Your task to perform on an android device: What's on my calendar tomorrow? Image 0: 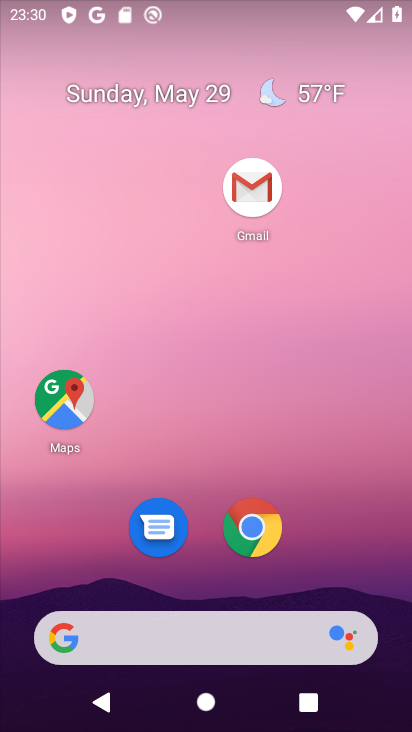
Step 0: drag from (341, 518) to (326, 140)
Your task to perform on an android device: What's on my calendar tomorrow? Image 1: 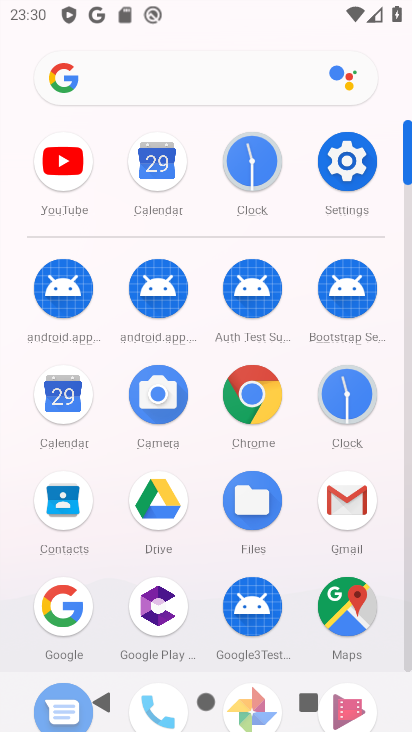
Step 1: click (156, 164)
Your task to perform on an android device: What's on my calendar tomorrow? Image 2: 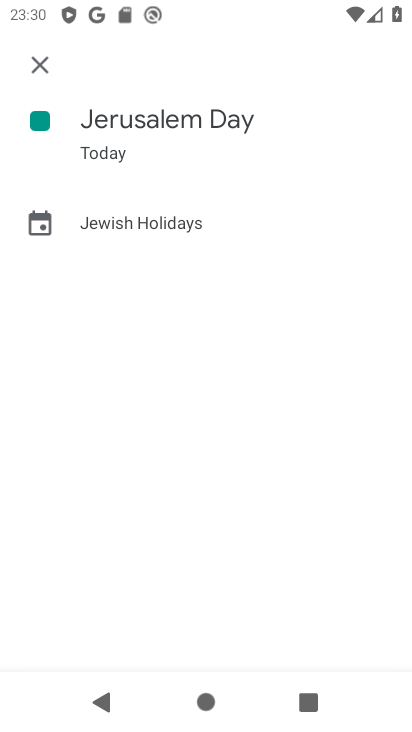
Step 2: click (43, 63)
Your task to perform on an android device: What's on my calendar tomorrow? Image 3: 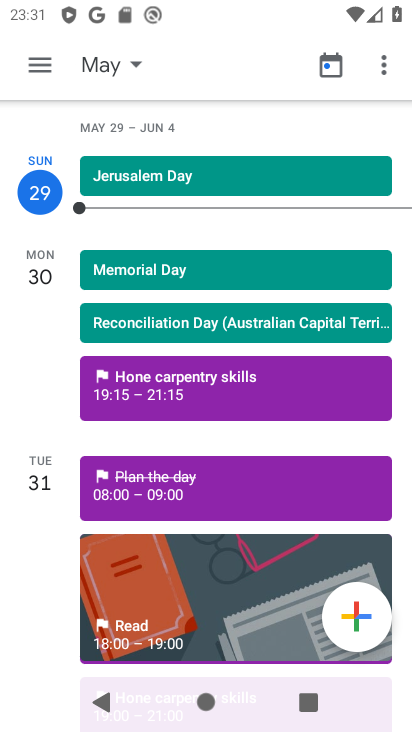
Step 3: click (335, 69)
Your task to perform on an android device: What's on my calendar tomorrow? Image 4: 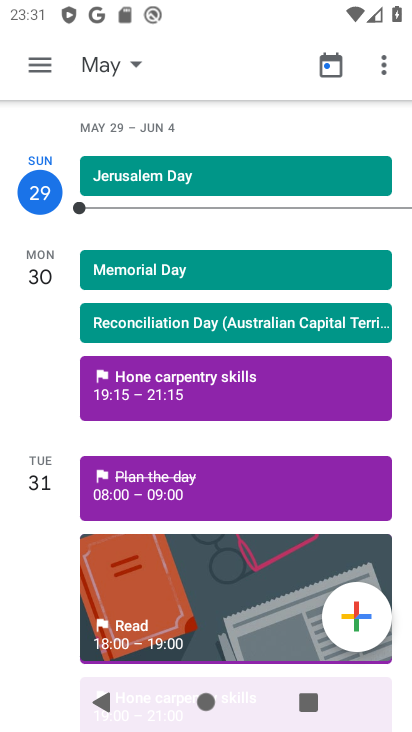
Step 4: click (137, 64)
Your task to perform on an android device: What's on my calendar tomorrow? Image 5: 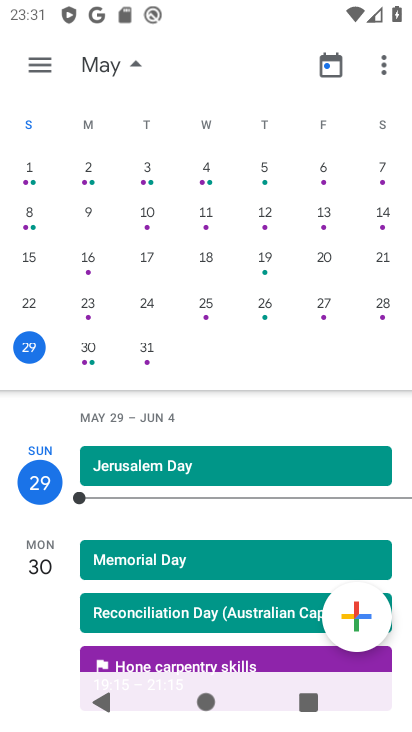
Step 5: click (100, 352)
Your task to perform on an android device: What's on my calendar tomorrow? Image 6: 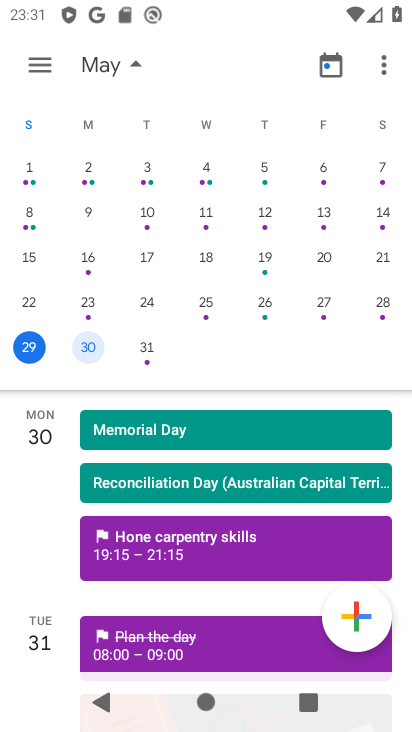
Step 6: click (38, 52)
Your task to perform on an android device: What's on my calendar tomorrow? Image 7: 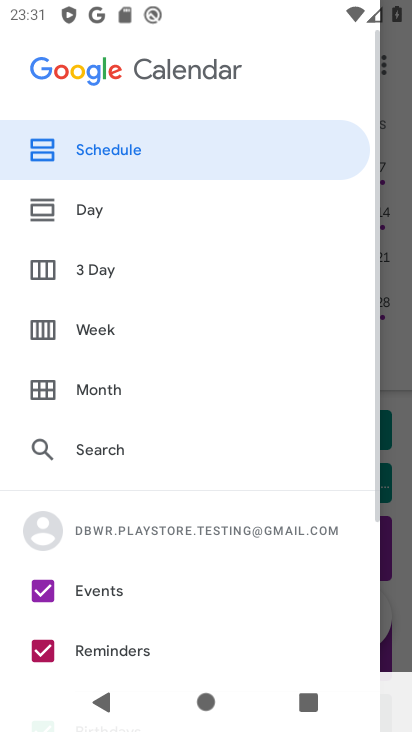
Step 7: click (130, 154)
Your task to perform on an android device: What's on my calendar tomorrow? Image 8: 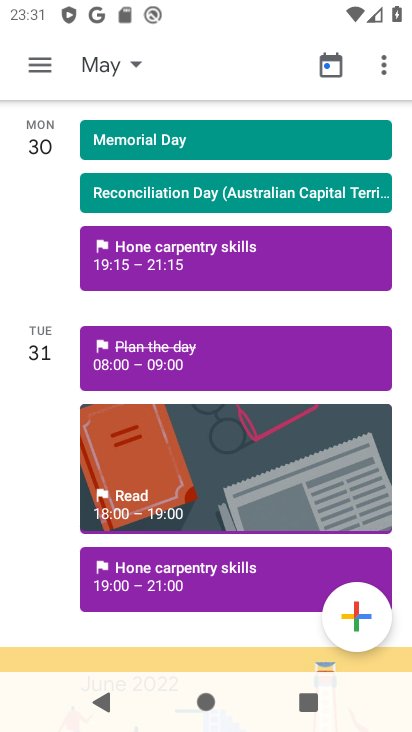
Step 8: task complete